Your task to perform on an android device: Show me the alarms in the clock app Image 0: 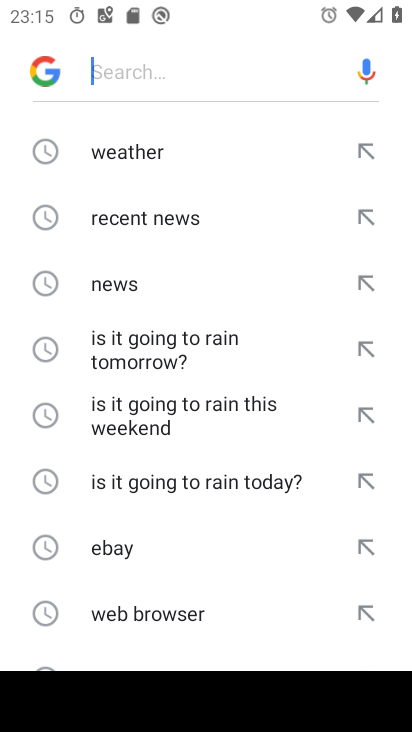
Step 0: press home button
Your task to perform on an android device: Show me the alarms in the clock app Image 1: 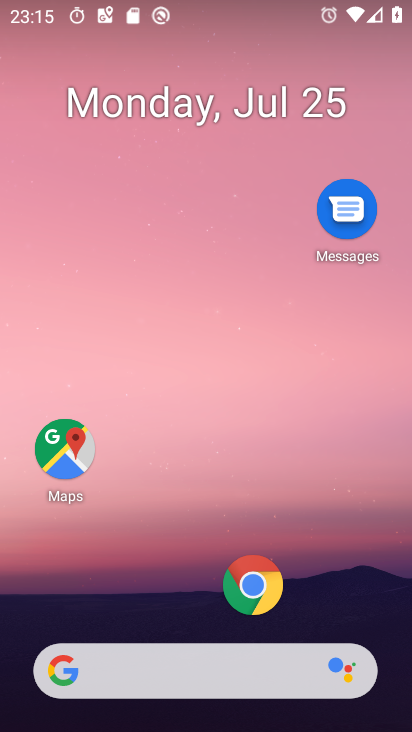
Step 1: drag from (134, 674) to (277, 161)
Your task to perform on an android device: Show me the alarms in the clock app Image 2: 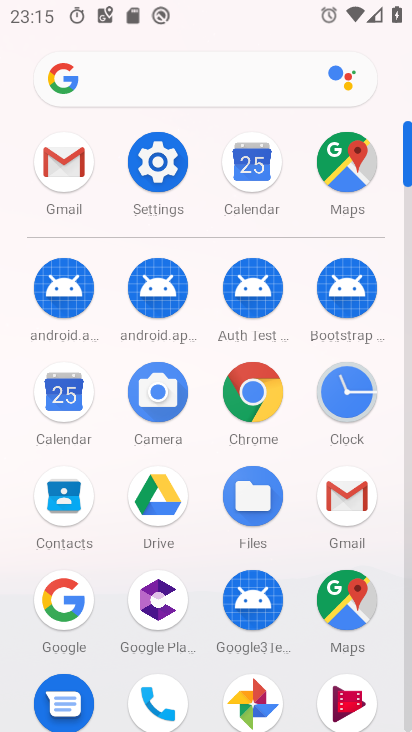
Step 2: click (346, 398)
Your task to perform on an android device: Show me the alarms in the clock app Image 3: 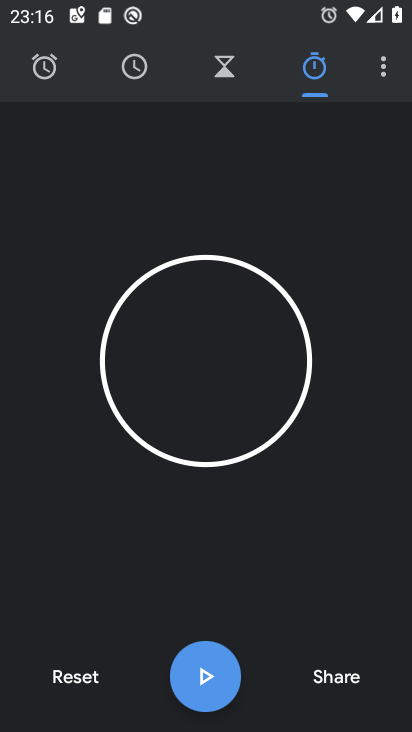
Step 3: click (381, 71)
Your task to perform on an android device: Show me the alarms in the clock app Image 4: 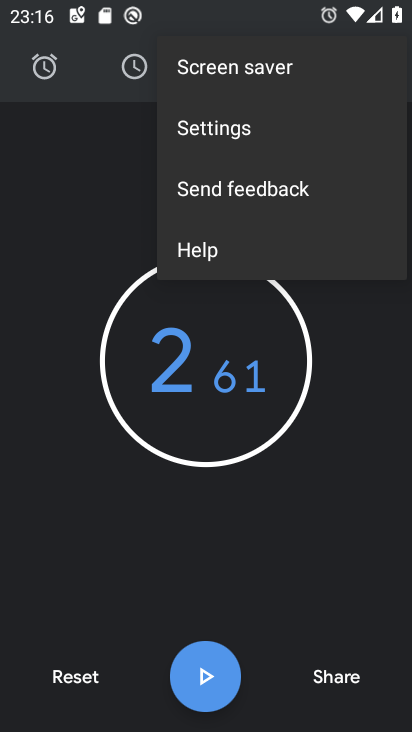
Step 4: click (240, 132)
Your task to perform on an android device: Show me the alarms in the clock app Image 5: 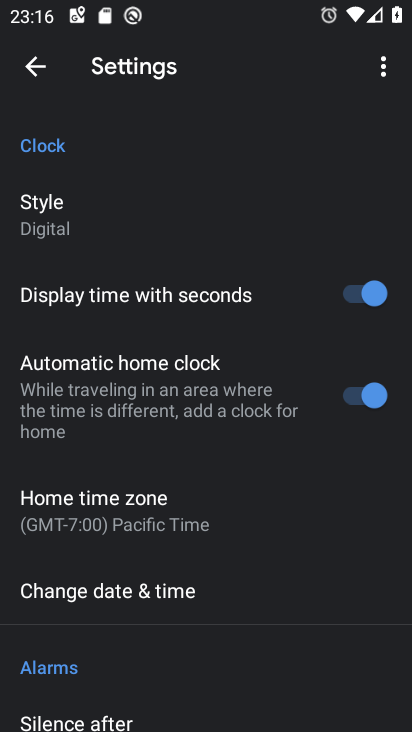
Step 5: click (37, 69)
Your task to perform on an android device: Show me the alarms in the clock app Image 6: 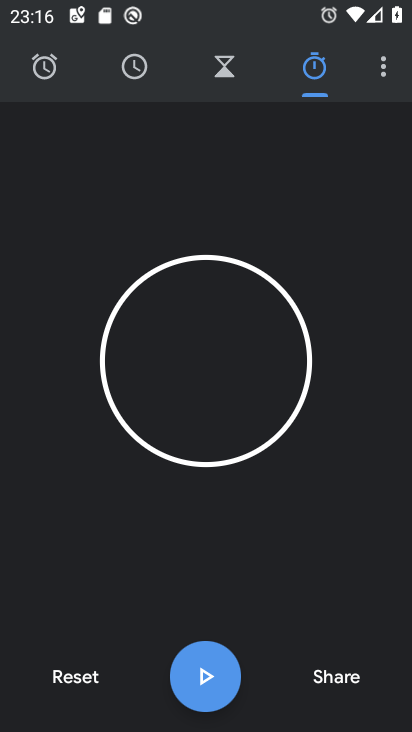
Step 6: click (44, 68)
Your task to perform on an android device: Show me the alarms in the clock app Image 7: 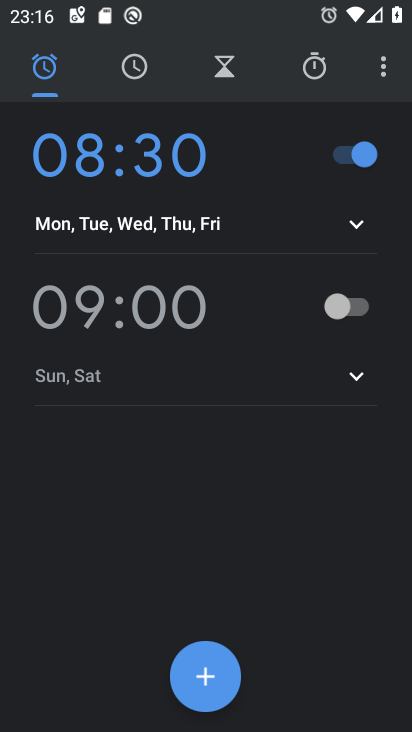
Step 7: task complete